Your task to perform on an android device: Turn off the flashlight Image 0: 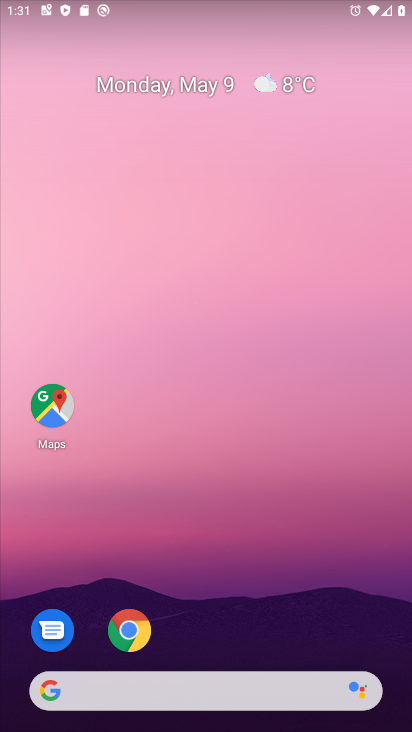
Step 0: drag from (329, 644) to (249, 62)
Your task to perform on an android device: Turn off the flashlight Image 1: 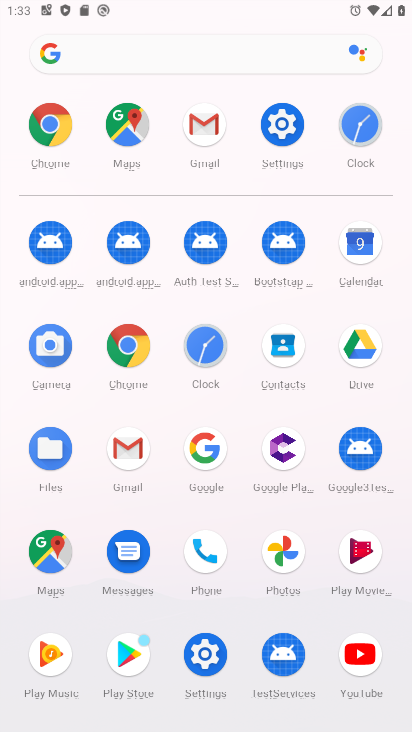
Step 1: click (210, 654)
Your task to perform on an android device: Turn off the flashlight Image 2: 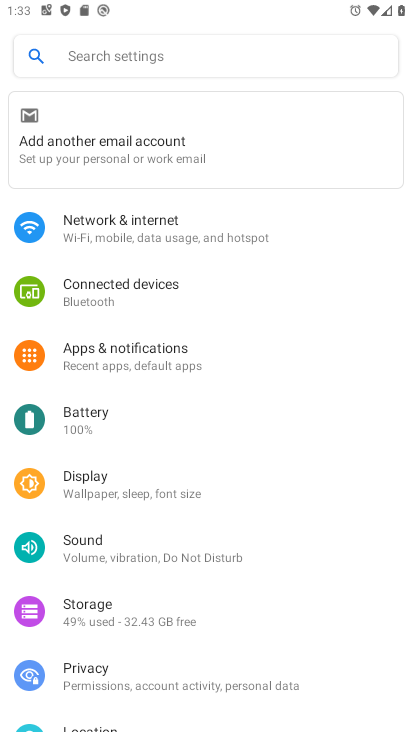
Step 2: task complete